Your task to perform on an android device: Go to wifi settings Image 0: 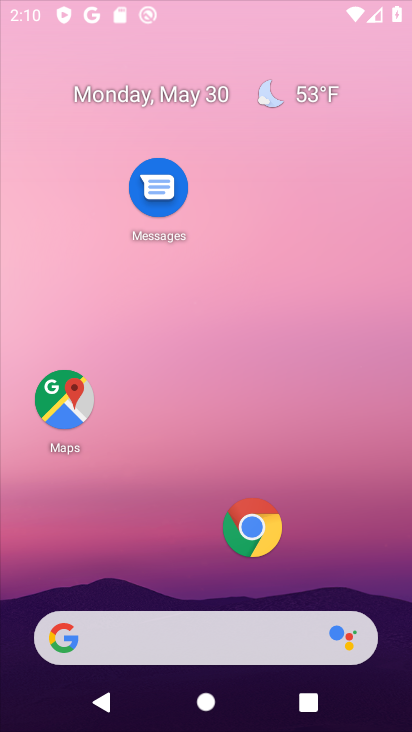
Step 0: drag from (166, 579) to (340, 165)
Your task to perform on an android device: Go to wifi settings Image 1: 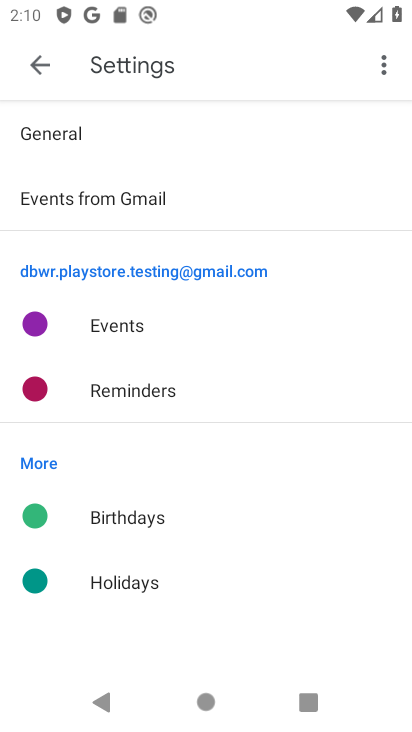
Step 1: press home button
Your task to perform on an android device: Go to wifi settings Image 2: 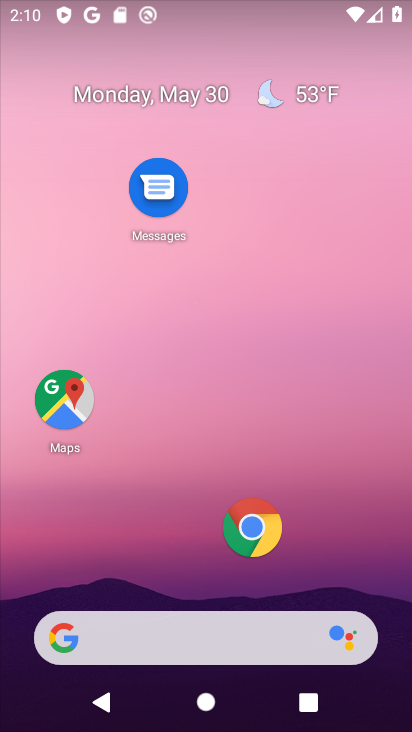
Step 2: drag from (191, 539) to (306, 145)
Your task to perform on an android device: Go to wifi settings Image 3: 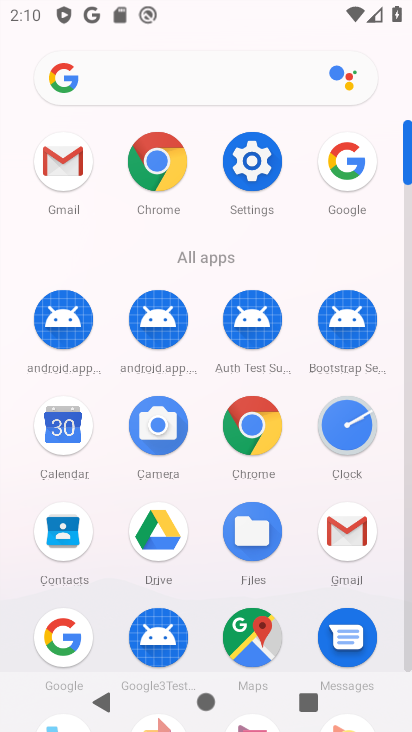
Step 3: drag from (217, 262) to (222, 52)
Your task to perform on an android device: Go to wifi settings Image 4: 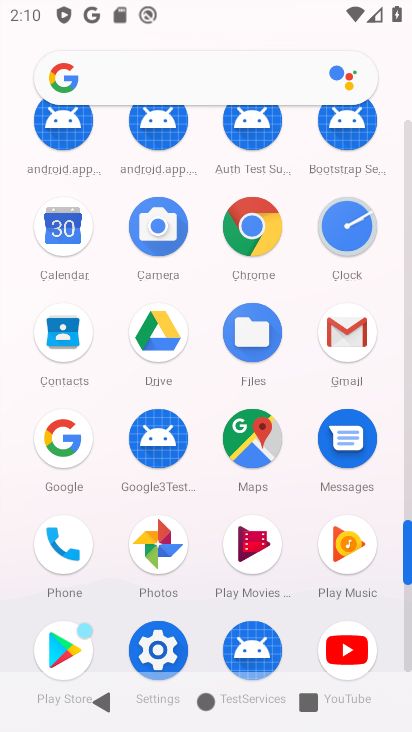
Step 4: click (157, 643)
Your task to perform on an android device: Go to wifi settings Image 5: 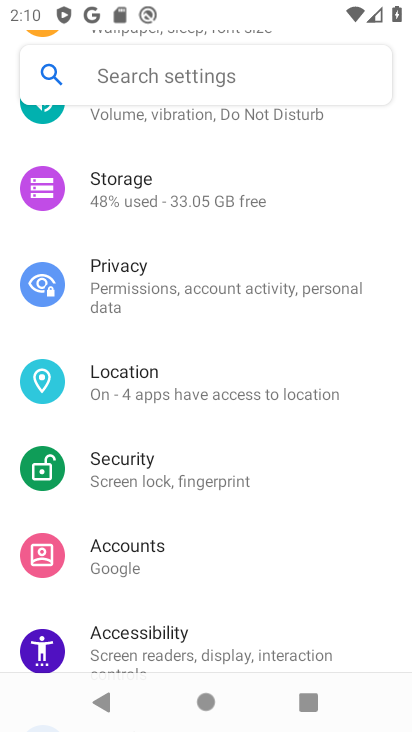
Step 5: drag from (188, 257) to (178, 632)
Your task to perform on an android device: Go to wifi settings Image 6: 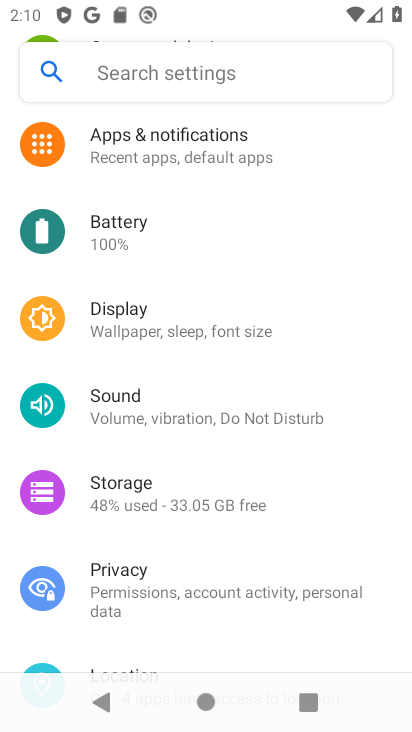
Step 6: drag from (210, 307) to (89, 624)
Your task to perform on an android device: Go to wifi settings Image 7: 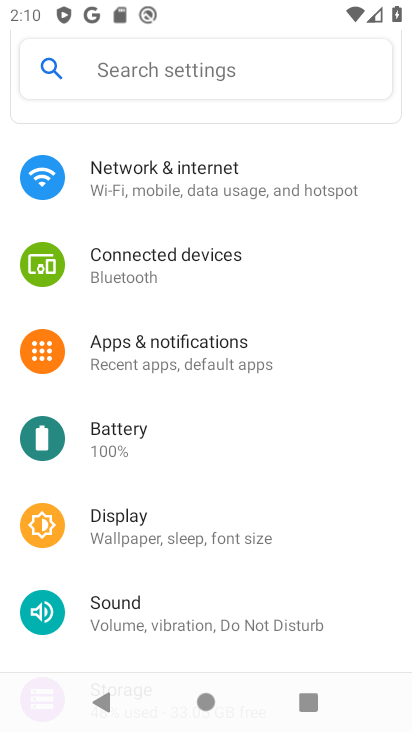
Step 7: click (219, 210)
Your task to perform on an android device: Go to wifi settings Image 8: 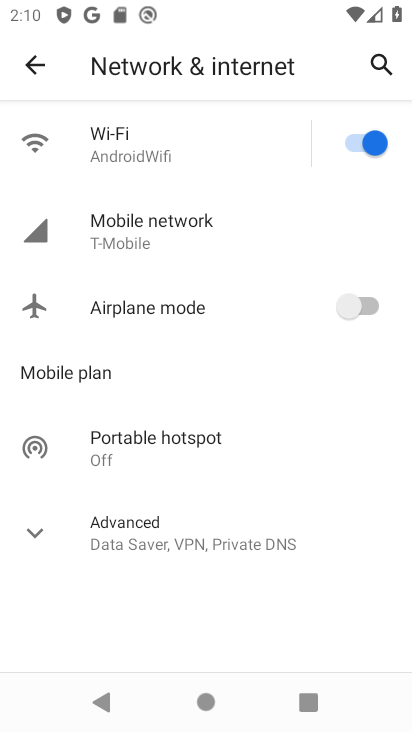
Step 8: click (167, 155)
Your task to perform on an android device: Go to wifi settings Image 9: 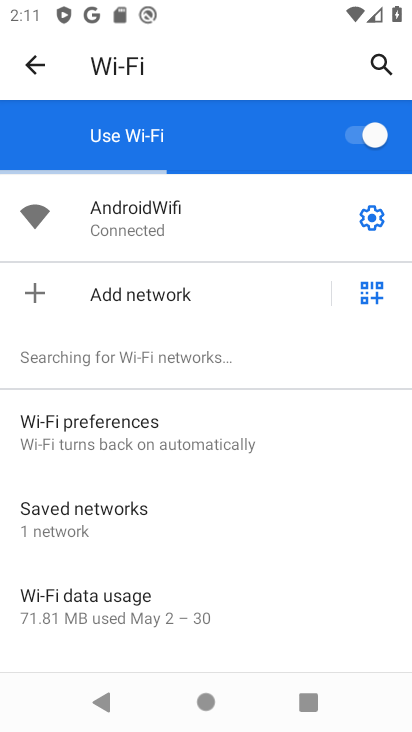
Step 9: task complete